Your task to perform on an android device: open chrome privacy settings Image 0: 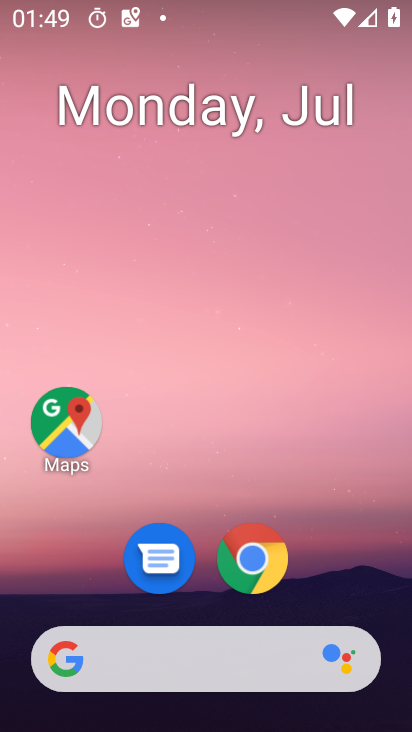
Step 0: click (258, 554)
Your task to perform on an android device: open chrome privacy settings Image 1: 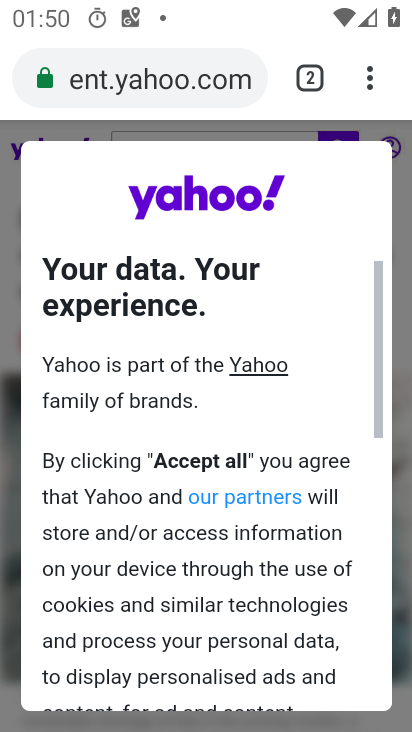
Step 1: drag from (371, 83) to (125, 615)
Your task to perform on an android device: open chrome privacy settings Image 2: 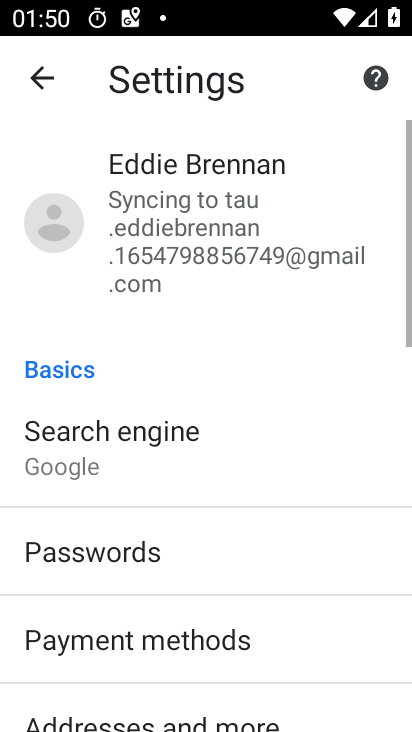
Step 2: drag from (126, 589) to (213, 15)
Your task to perform on an android device: open chrome privacy settings Image 3: 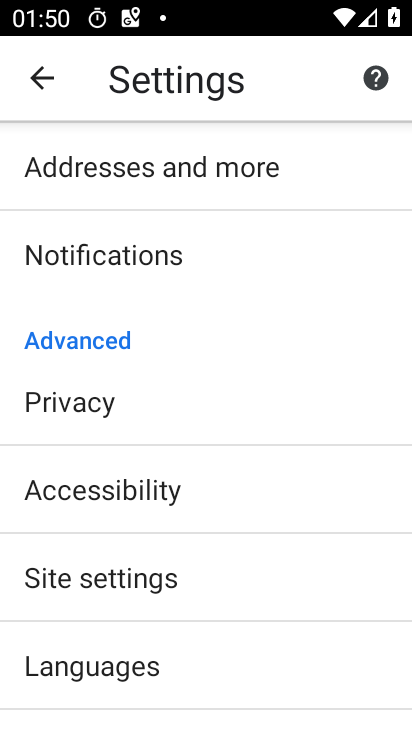
Step 3: click (43, 398)
Your task to perform on an android device: open chrome privacy settings Image 4: 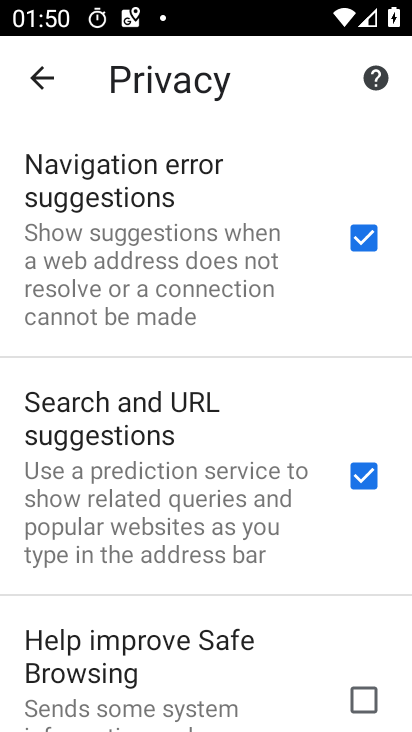
Step 4: task complete